Your task to perform on an android device: Check the weather Image 0: 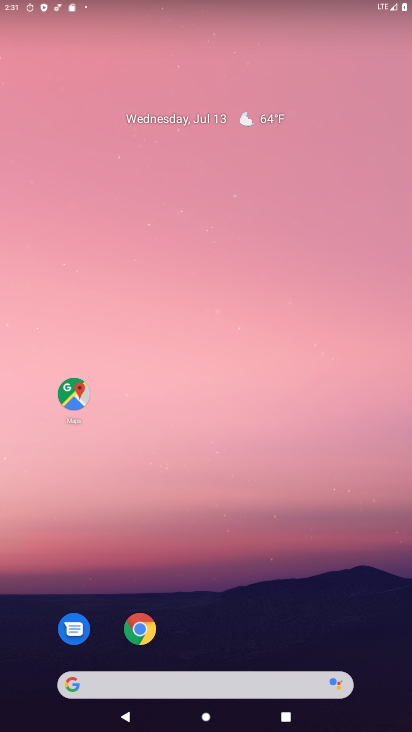
Step 0: drag from (243, 666) to (258, 89)
Your task to perform on an android device: Check the weather Image 1: 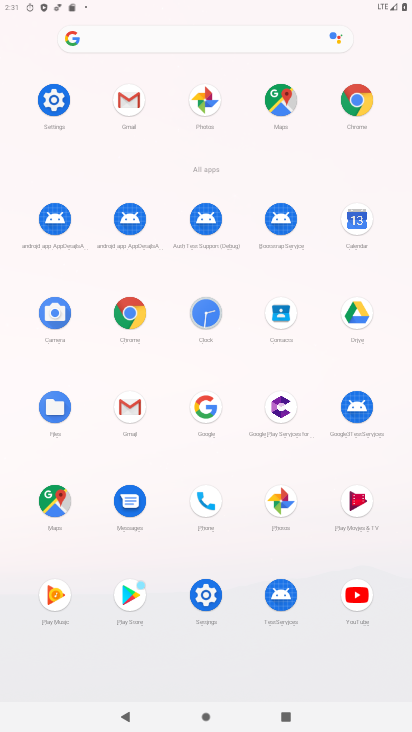
Step 1: click (128, 305)
Your task to perform on an android device: Check the weather Image 2: 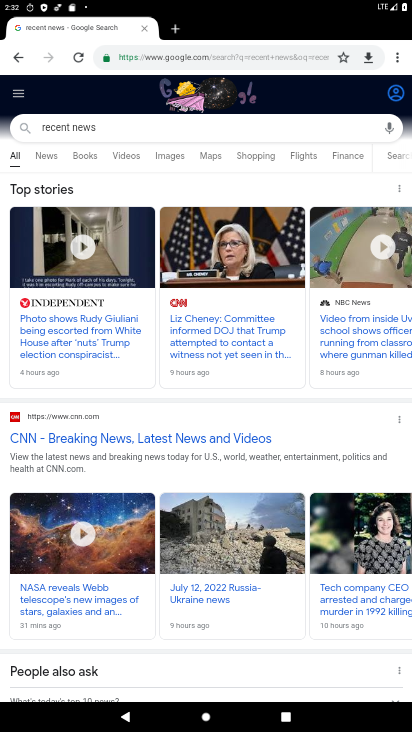
Step 2: click (196, 51)
Your task to perform on an android device: Check the weather Image 3: 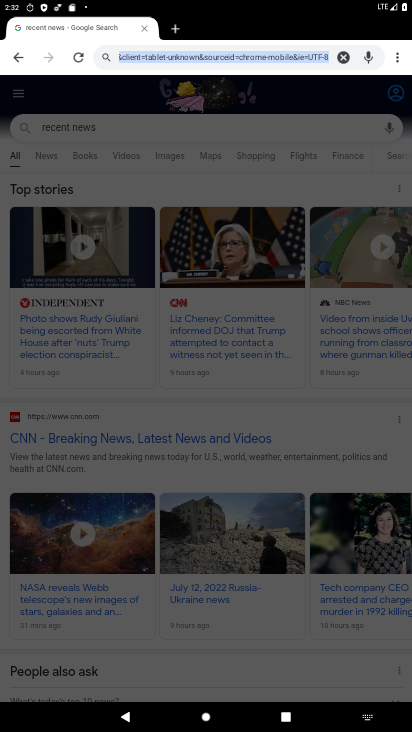
Step 3: type "whats the weather"
Your task to perform on an android device: Check the weather Image 4: 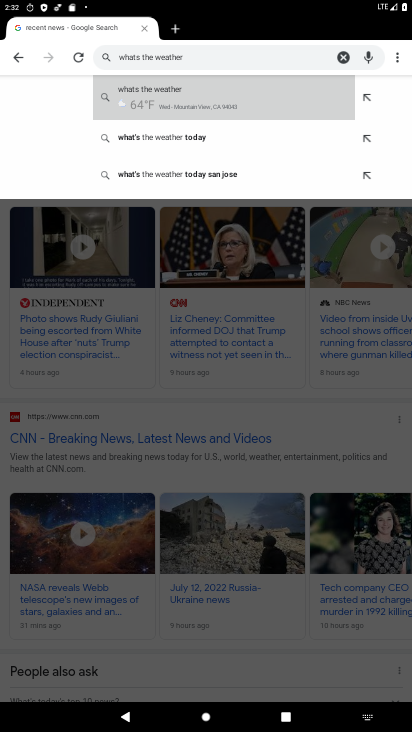
Step 4: click (212, 93)
Your task to perform on an android device: Check the weather Image 5: 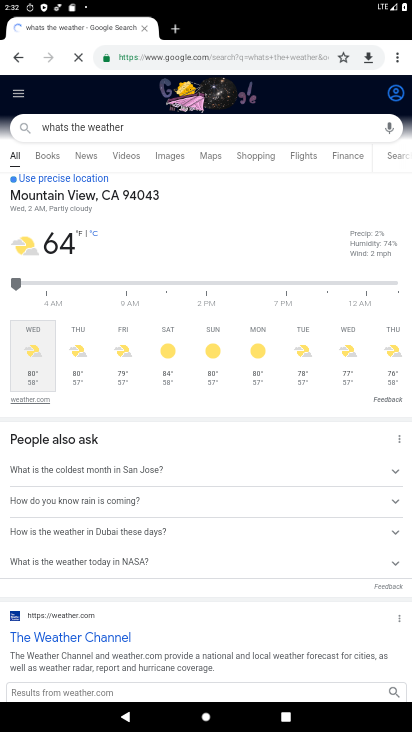
Step 5: task complete